Your task to perform on an android device: Go to sound settings Image 0: 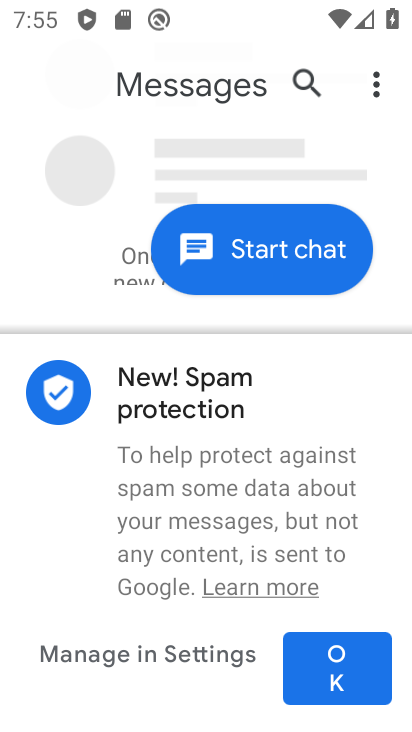
Step 0: press home button
Your task to perform on an android device: Go to sound settings Image 1: 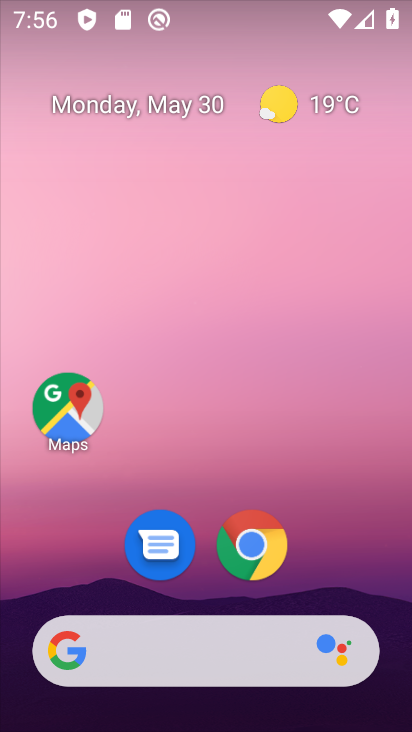
Step 1: drag from (323, 582) to (232, 79)
Your task to perform on an android device: Go to sound settings Image 2: 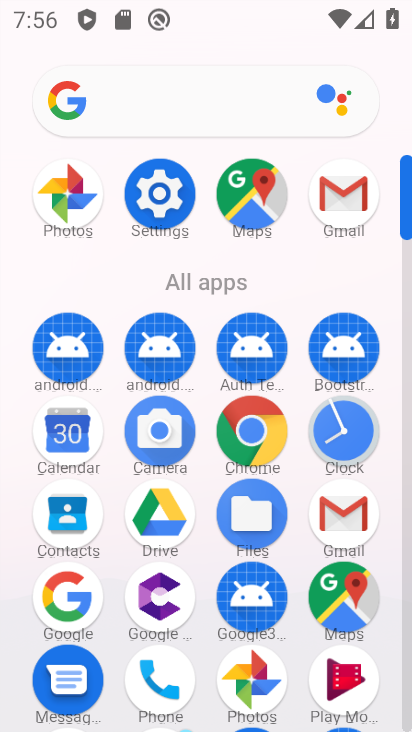
Step 2: click (158, 164)
Your task to perform on an android device: Go to sound settings Image 3: 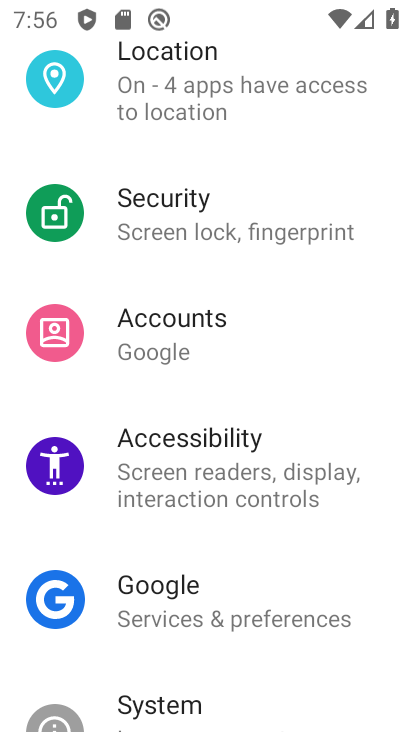
Step 3: drag from (321, 320) to (370, 694)
Your task to perform on an android device: Go to sound settings Image 4: 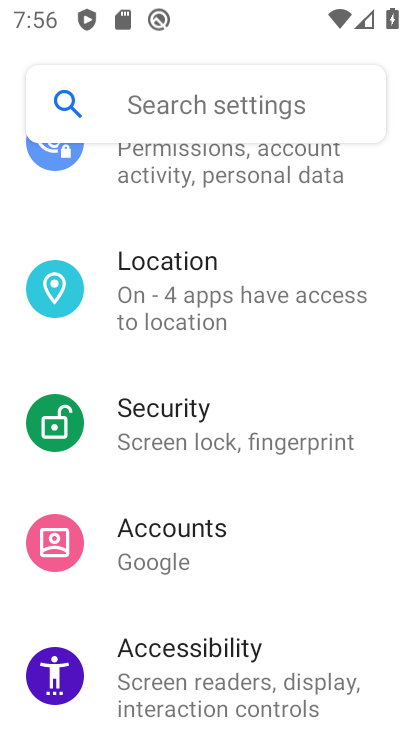
Step 4: drag from (306, 389) to (333, 699)
Your task to perform on an android device: Go to sound settings Image 5: 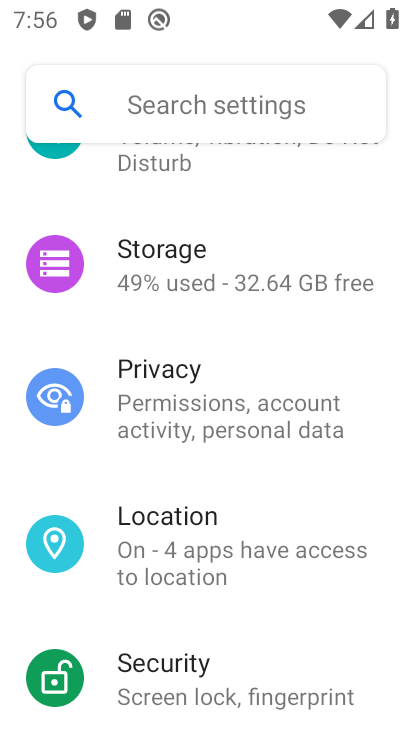
Step 5: drag from (286, 362) to (318, 602)
Your task to perform on an android device: Go to sound settings Image 6: 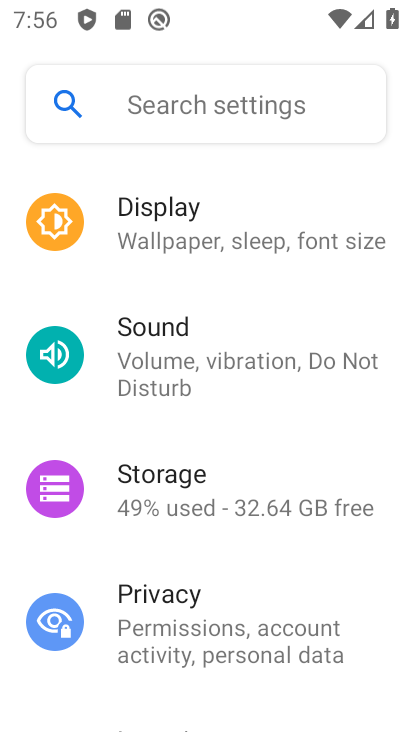
Step 6: click (273, 358)
Your task to perform on an android device: Go to sound settings Image 7: 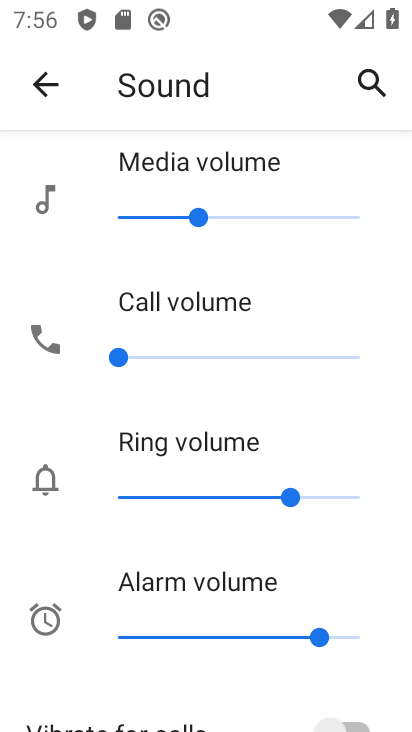
Step 7: task complete